Your task to perform on an android device: Open battery settings Image 0: 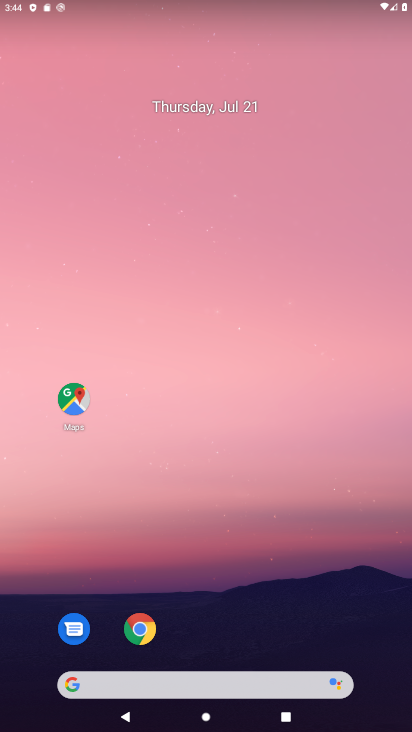
Step 0: drag from (345, 634) to (167, 44)
Your task to perform on an android device: Open battery settings Image 1: 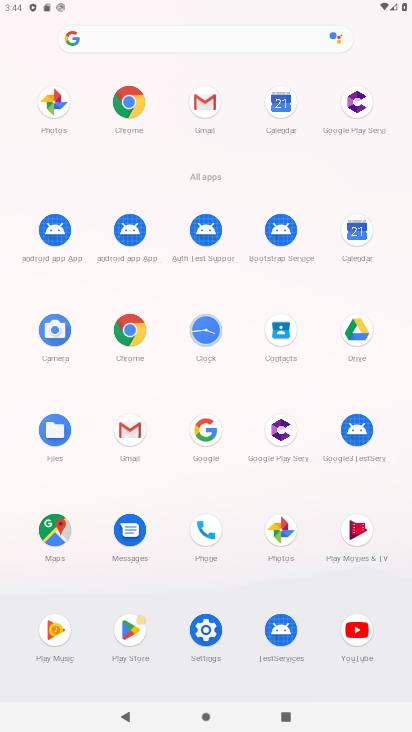
Step 1: click (212, 638)
Your task to perform on an android device: Open battery settings Image 2: 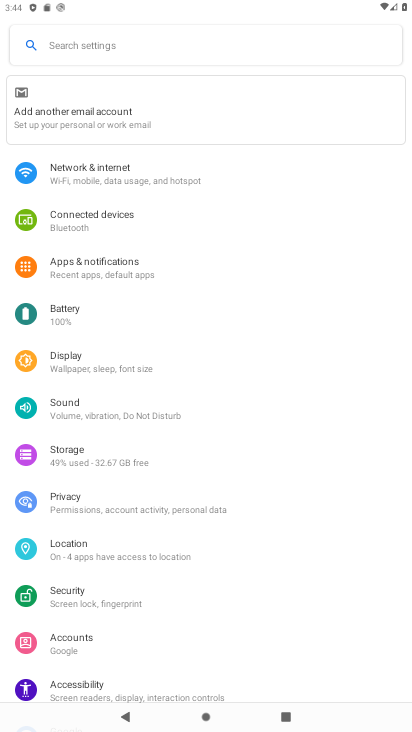
Step 2: click (57, 293)
Your task to perform on an android device: Open battery settings Image 3: 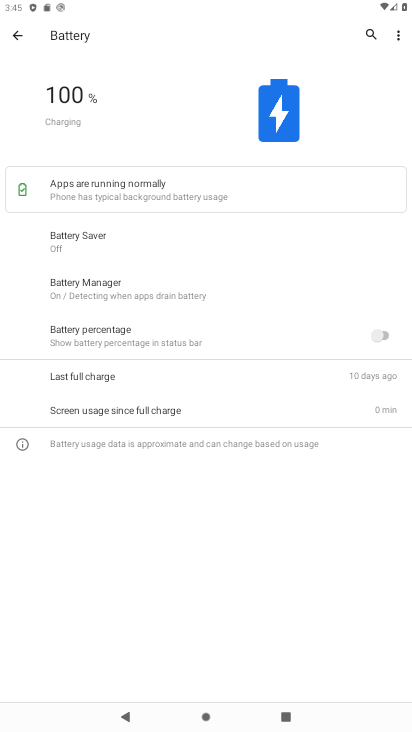
Step 3: task complete